Your task to perform on an android device: Go to battery settings Image 0: 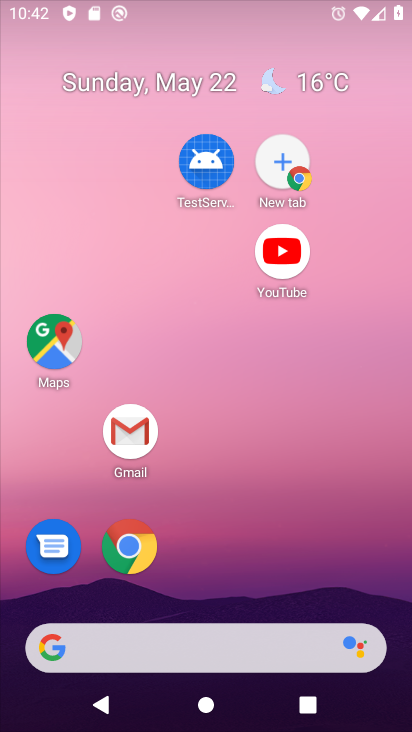
Step 0: drag from (340, 620) to (325, 99)
Your task to perform on an android device: Go to battery settings Image 1: 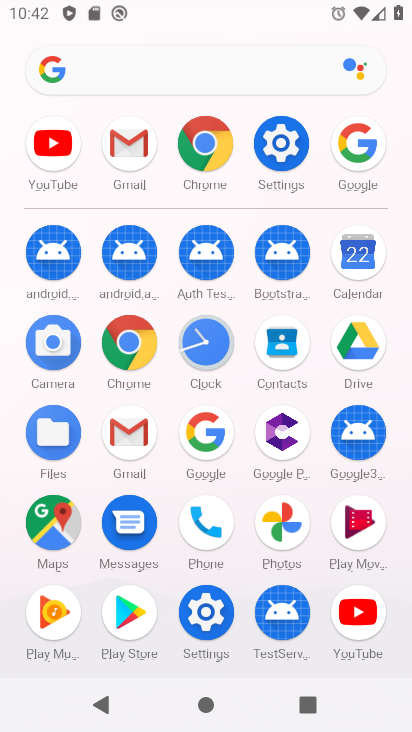
Step 1: click (277, 153)
Your task to perform on an android device: Go to battery settings Image 2: 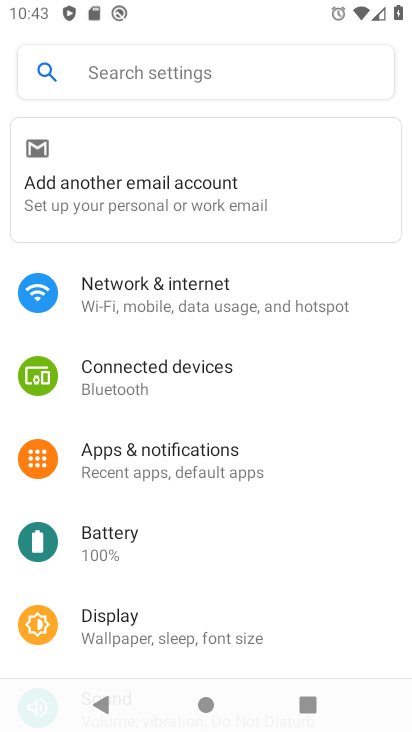
Step 2: click (82, 530)
Your task to perform on an android device: Go to battery settings Image 3: 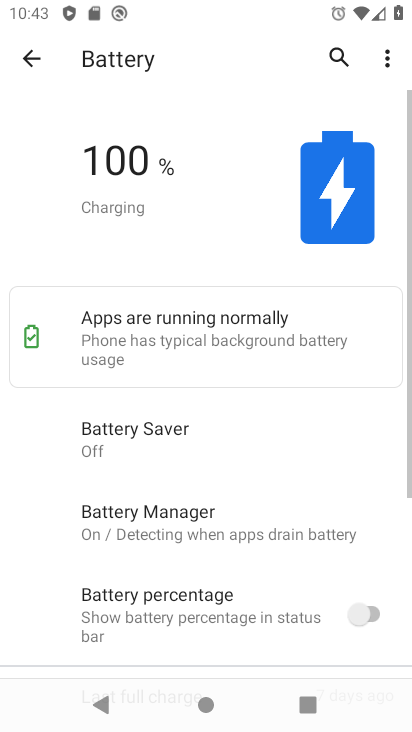
Step 3: task complete